Your task to perform on an android device: toggle sleep mode Image 0: 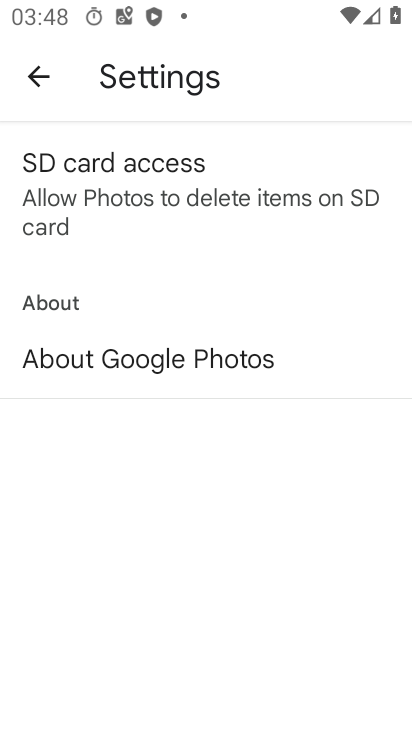
Step 0: press home button
Your task to perform on an android device: toggle sleep mode Image 1: 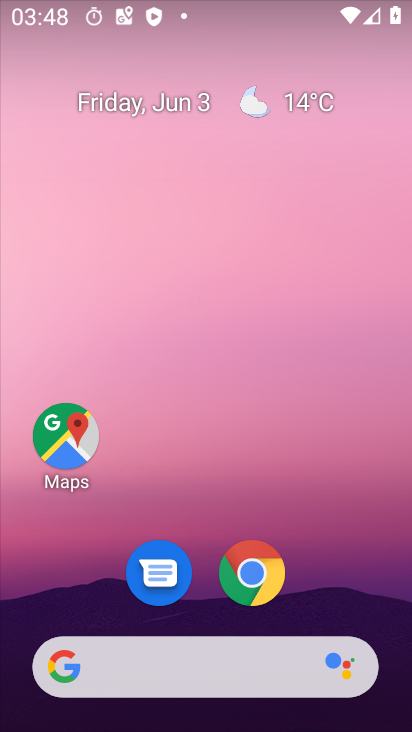
Step 1: drag from (177, 665) to (229, 116)
Your task to perform on an android device: toggle sleep mode Image 2: 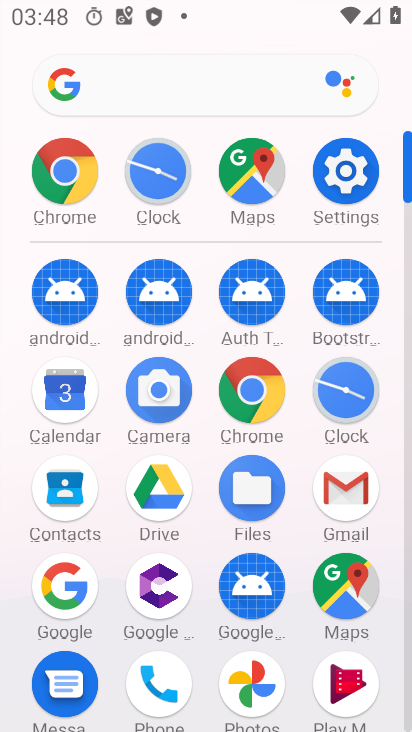
Step 2: click (360, 177)
Your task to perform on an android device: toggle sleep mode Image 3: 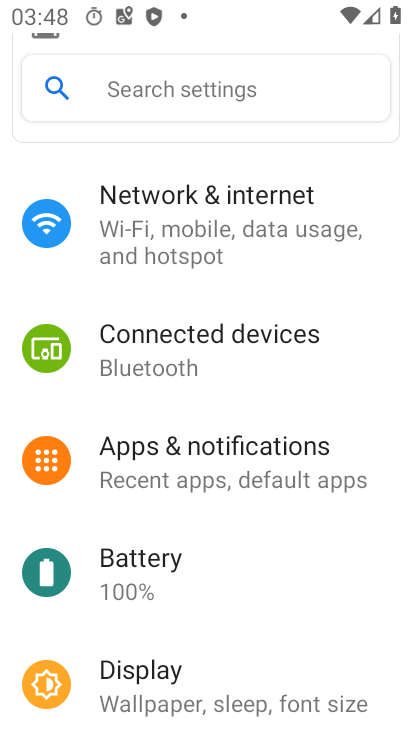
Step 3: click (271, 694)
Your task to perform on an android device: toggle sleep mode Image 4: 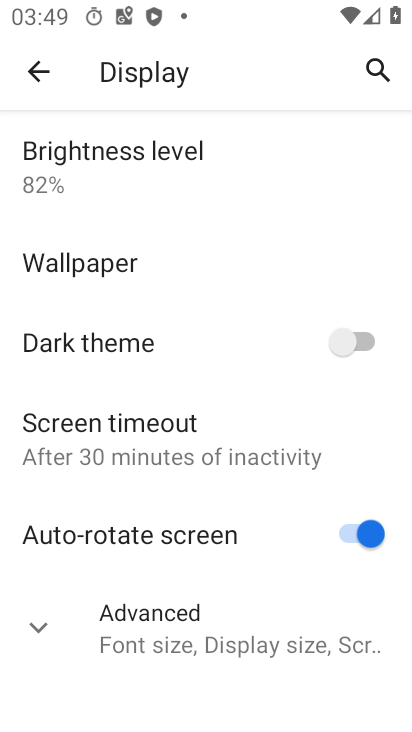
Step 4: task complete